Your task to perform on an android device: What's the weather? Image 0: 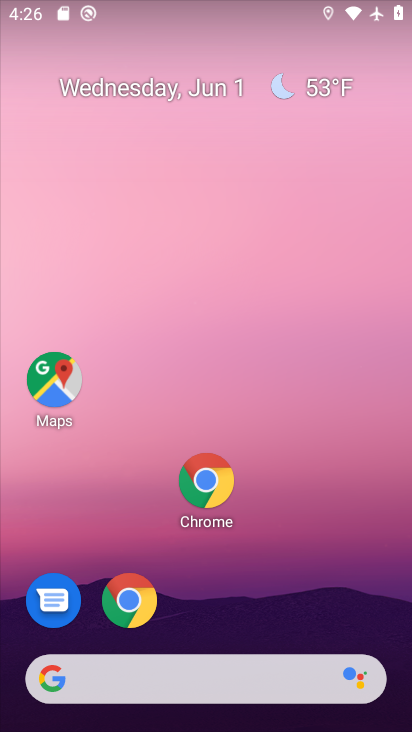
Step 0: drag from (182, 629) to (127, 14)
Your task to perform on an android device: What's the weather? Image 1: 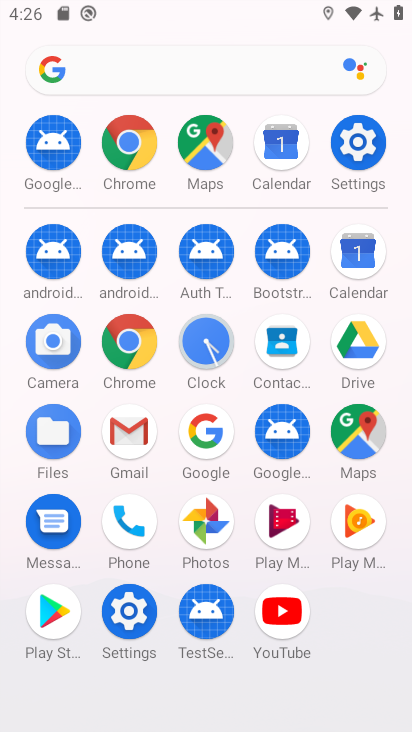
Step 1: press back button
Your task to perform on an android device: What's the weather? Image 2: 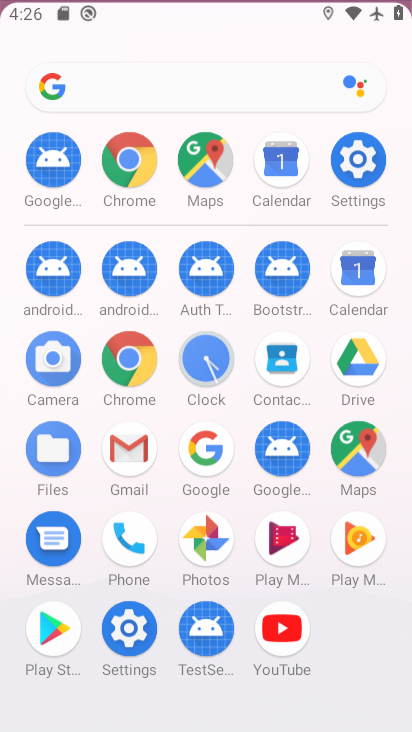
Step 2: press back button
Your task to perform on an android device: What's the weather? Image 3: 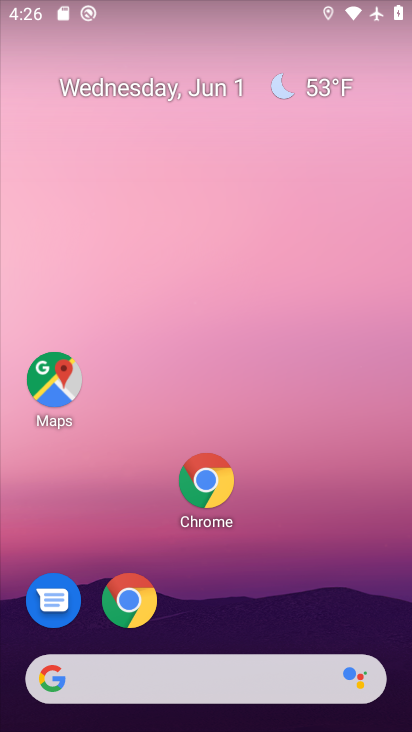
Step 3: press back button
Your task to perform on an android device: What's the weather? Image 4: 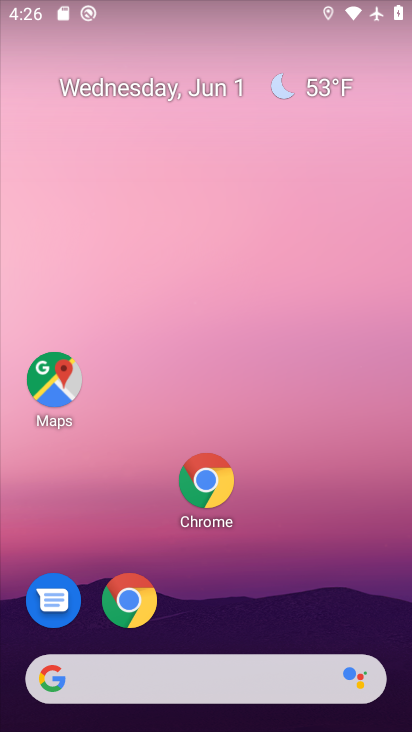
Step 4: drag from (12, 126) to (392, 443)
Your task to perform on an android device: What's the weather? Image 5: 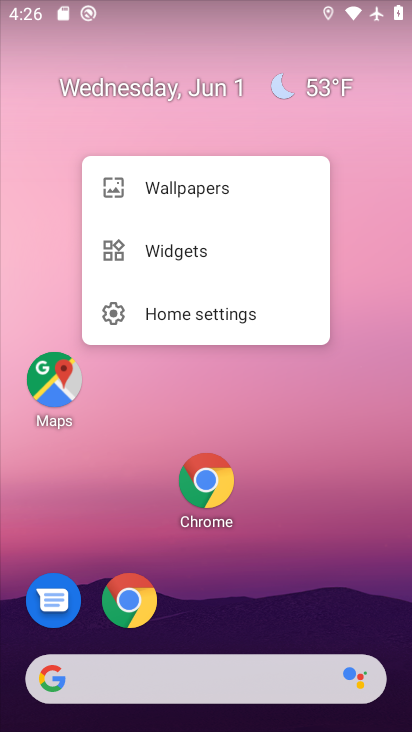
Step 5: drag from (4, 189) to (402, 569)
Your task to perform on an android device: What's the weather? Image 6: 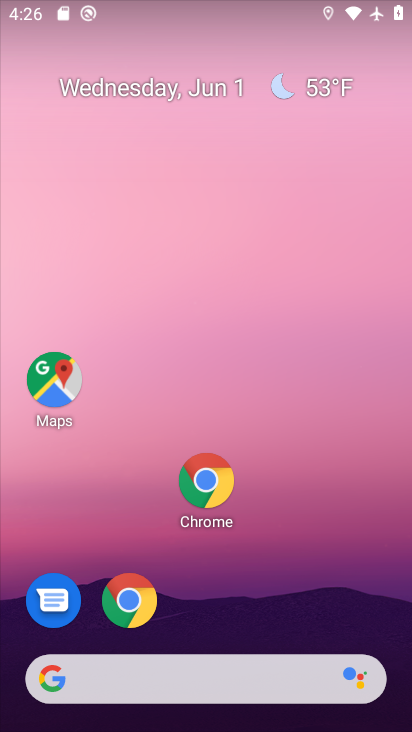
Step 6: drag from (17, 143) to (354, 544)
Your task to perform on an android device: What's the weather? Image 7: 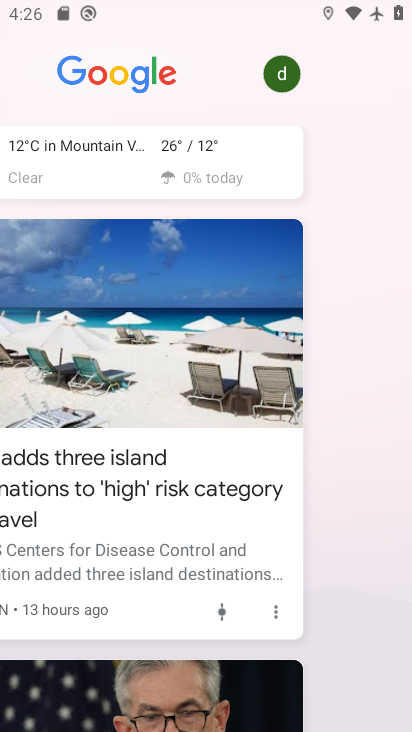
Step 7: drag from (35, 123) to (395, 601)
Your task to perform on an android device: What's the weather? Image 8: 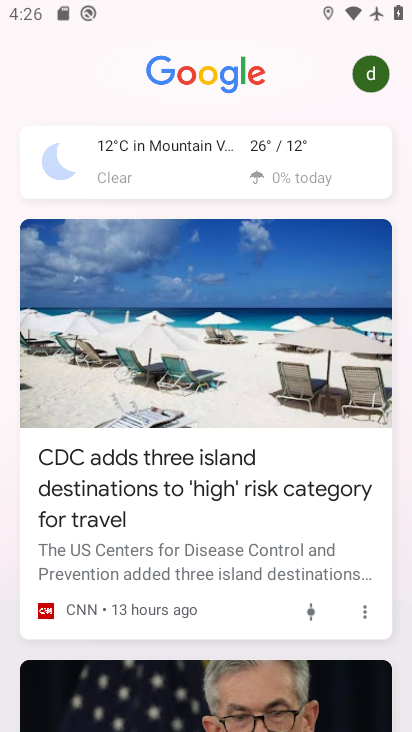
Step 8: click (184, 146)
Your task to perform on an android device: What's the weather? Image 9: 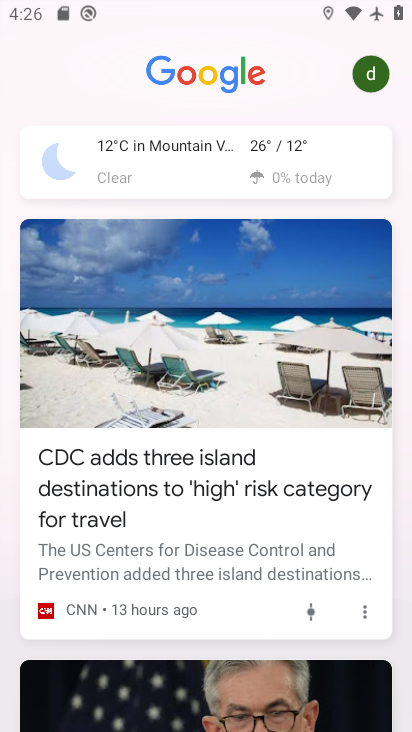
Step 9: click (182, 146)
Your task to perform on an android device: What's the weather? Image 10: 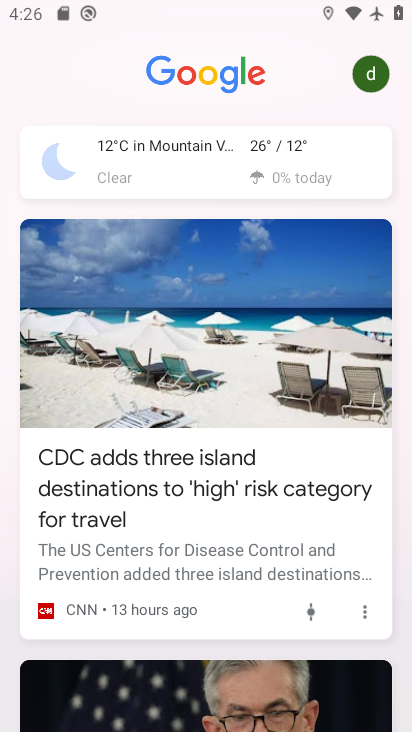
Step 10: click (182, 146)
Your task to perform on an android device: What's the weather? Image 11: 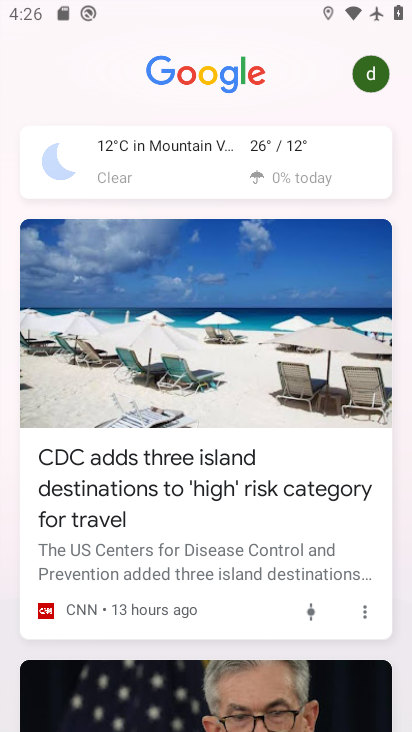
Step 11: click (181, 155)
Your task to perform on an android device: What's the weather? Image 12: 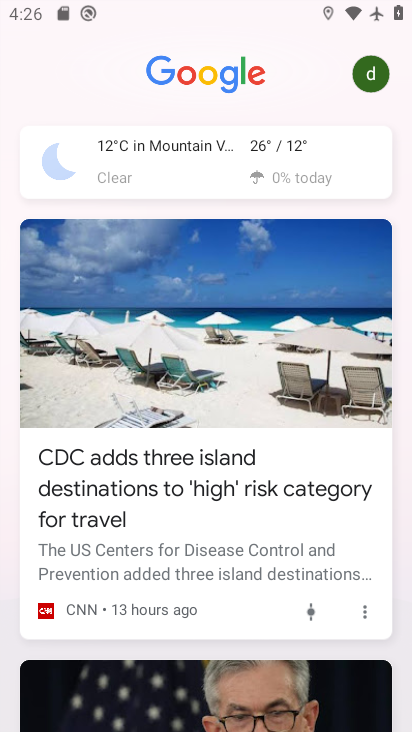
Step 12: click (190, 170)
Your task to perform on an android device: What's the weather? Image 13: 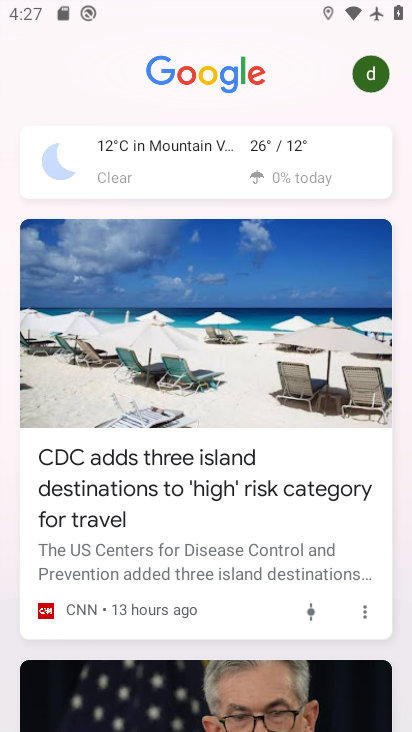
Step 13: click (198, 171)
Your task to perform on an android device: What's the weather? Image 14: 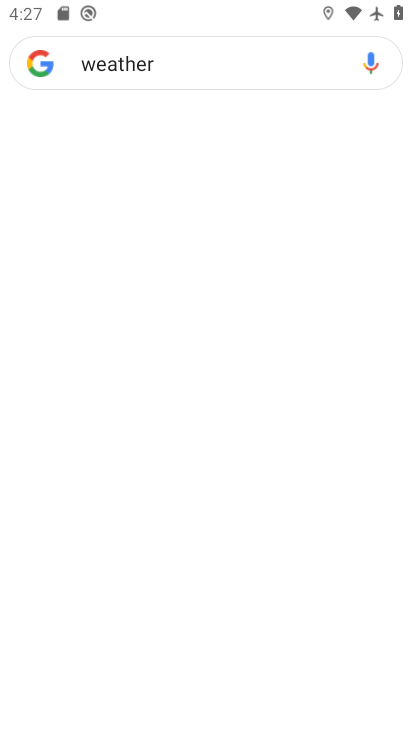
Step 14: click (198, 171)
Your task to perform on an android device: What's the weather? Image 15: 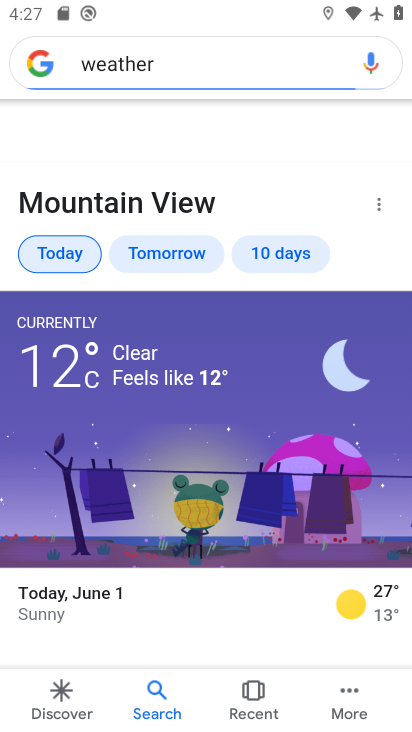
Step 15: task complete